Your task to perform on an android device: Open Chrome and go to the settings page Image 0: 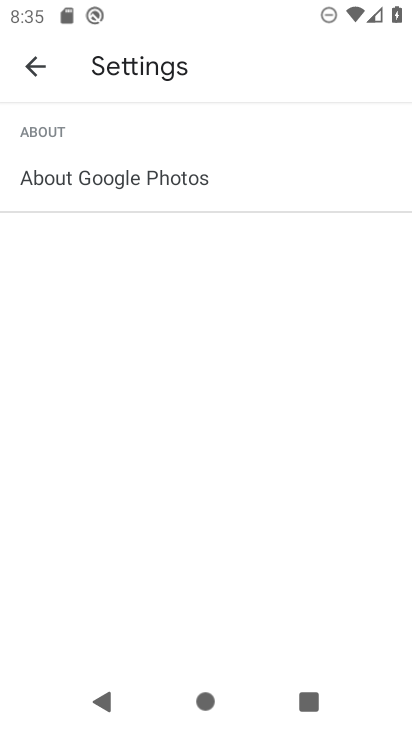
Step 0: press home button
Your task to perform on an android device: Open Chrome and go to the settings page Image 1: 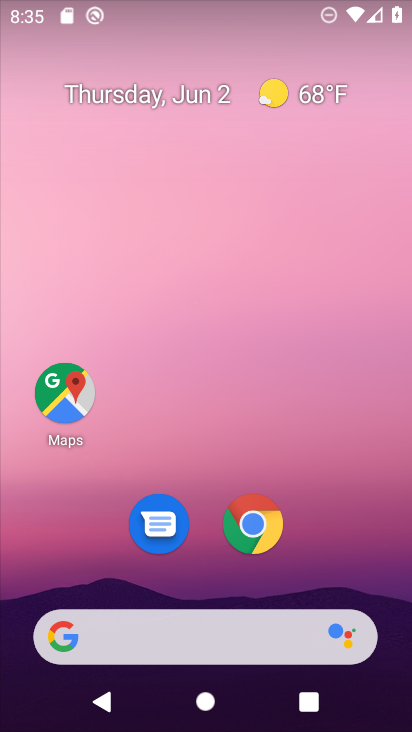
Step 1: click (266, 525)
Your task to perform on an android device: Open Chrome and go to the settings page Image 2: 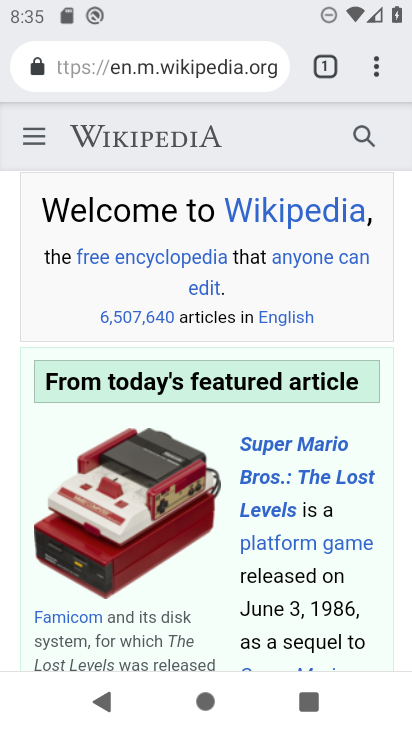
Step 2: click (376, 76)
Your task to perform on an android device: Open Chrome and go to the settings page Image 3: 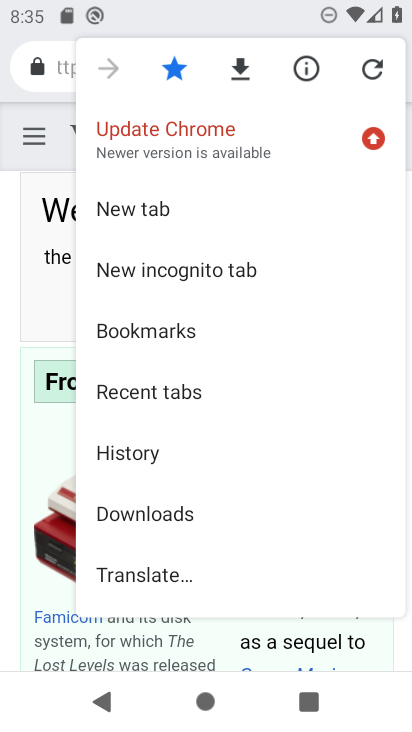
Step 3: drag from (261, 447) to (270, 99)
Your task to perform on an android device: Open Chrome and go to the settings page Image 4: 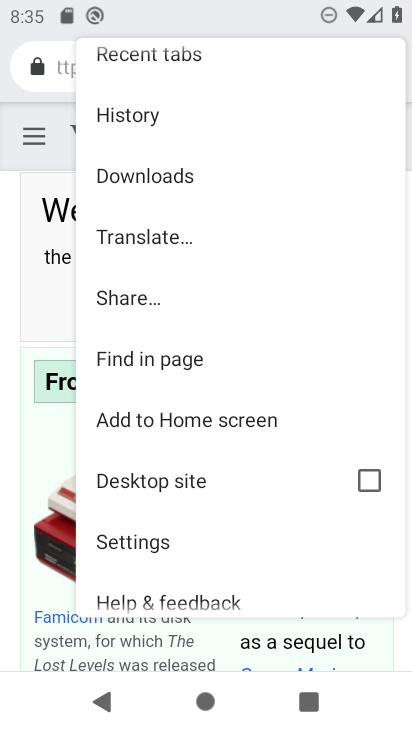
Step 4: click (161, 530)
Your task to perform on an android device: Open Chrome and go to the settings page Image 5: 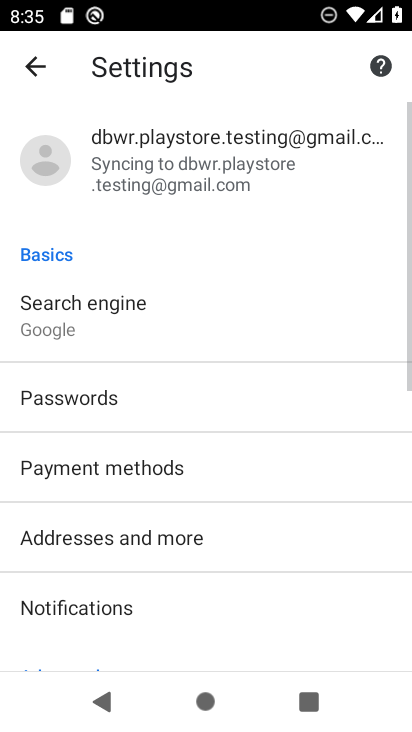
Step 5: task complete